Your task to perform on an android device: star an email in the gmail app Image 0: 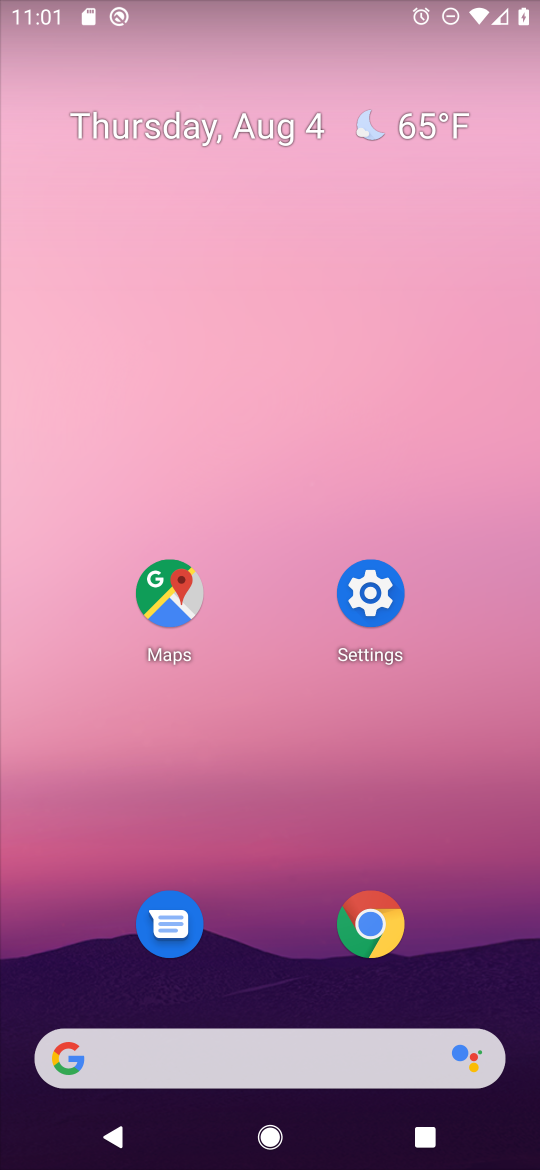
Step 0: press home button
Your task to perform on an android device: star an email in the gmail app Image 1: 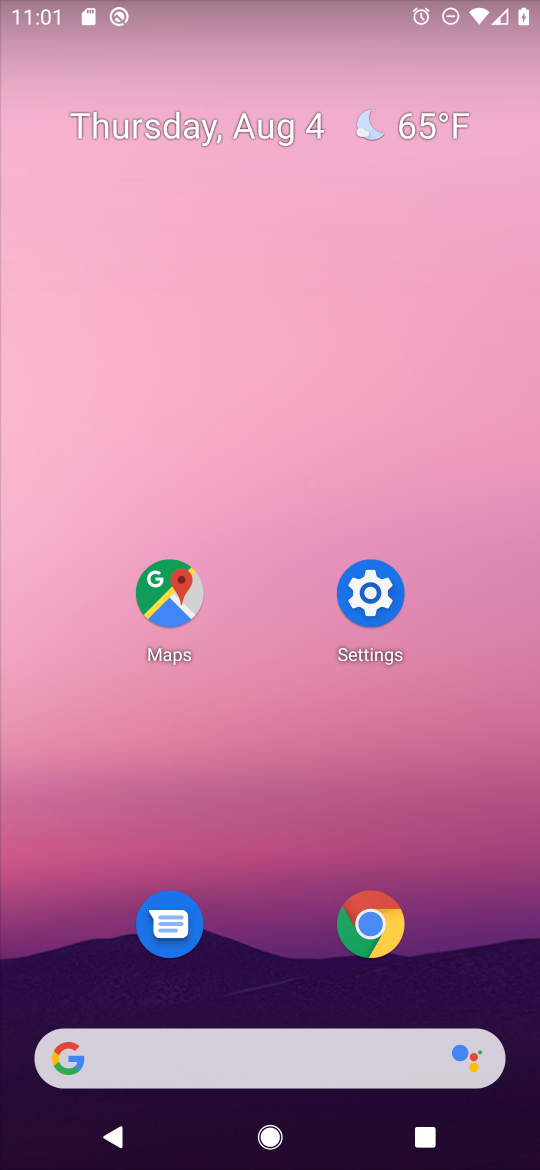
Step 1: drag from (212, 1048) to (239, 95)
Your task to perform on an android device: star an email in the gmail app Image 2: 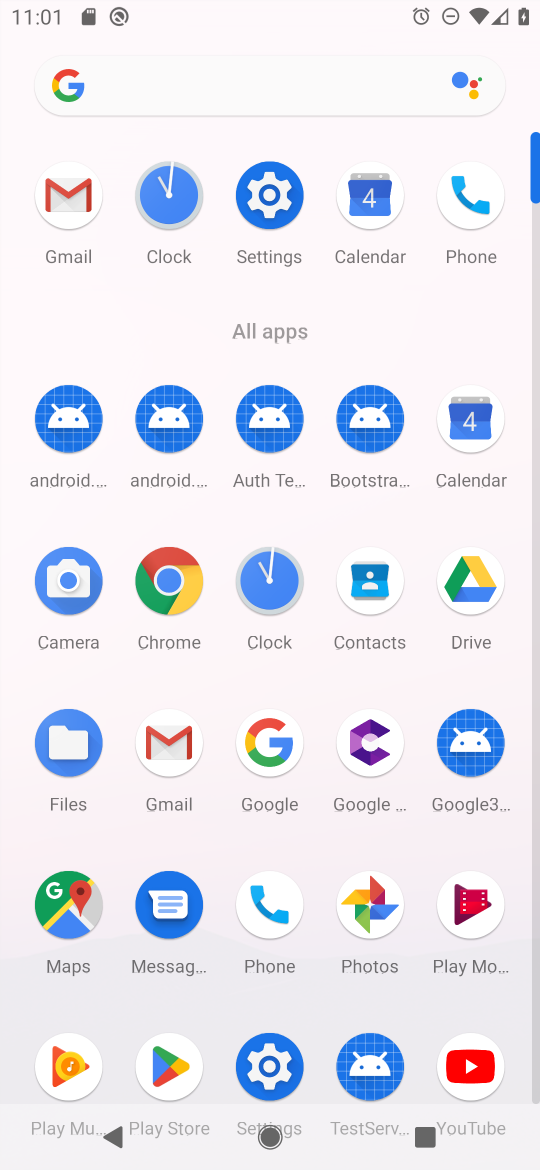
Step 2: click (73, 221)
Your task to perform on an android device: star an email in the gmail app Image 3: 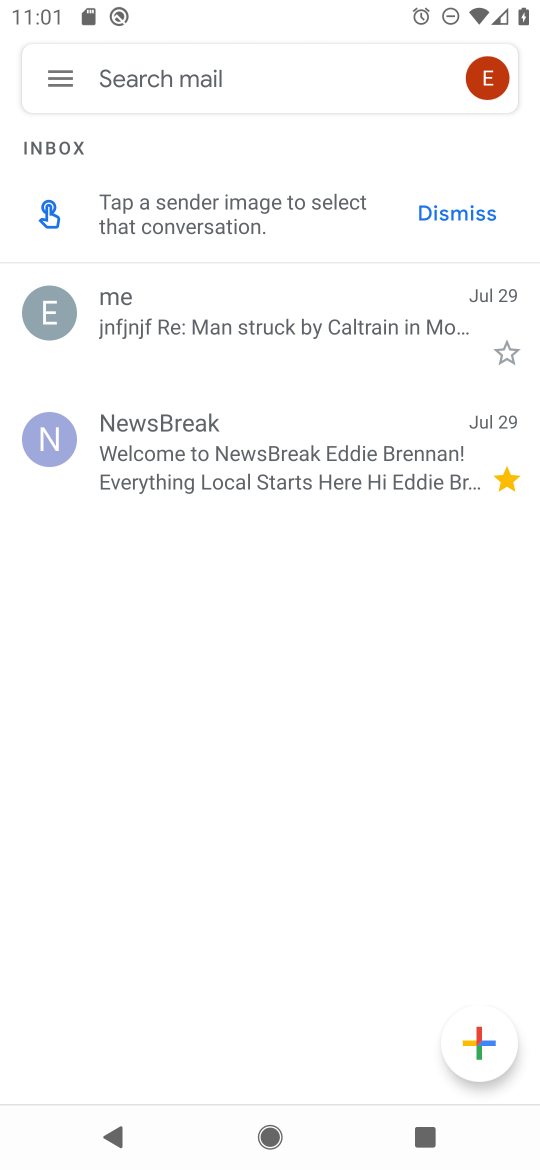
Step 3: click (48, 72)
Your task to perform on an android device: star an email in the gmail app Image 4: 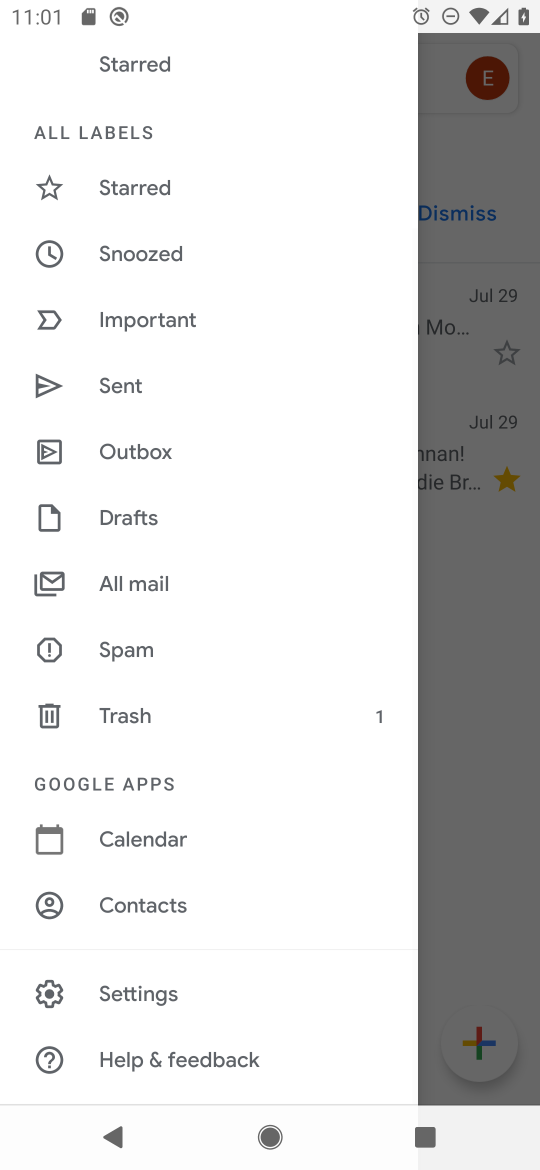
Step 4: click (472, 635)
Your task to perform on an android device: star an email in the gmail app Image 5: 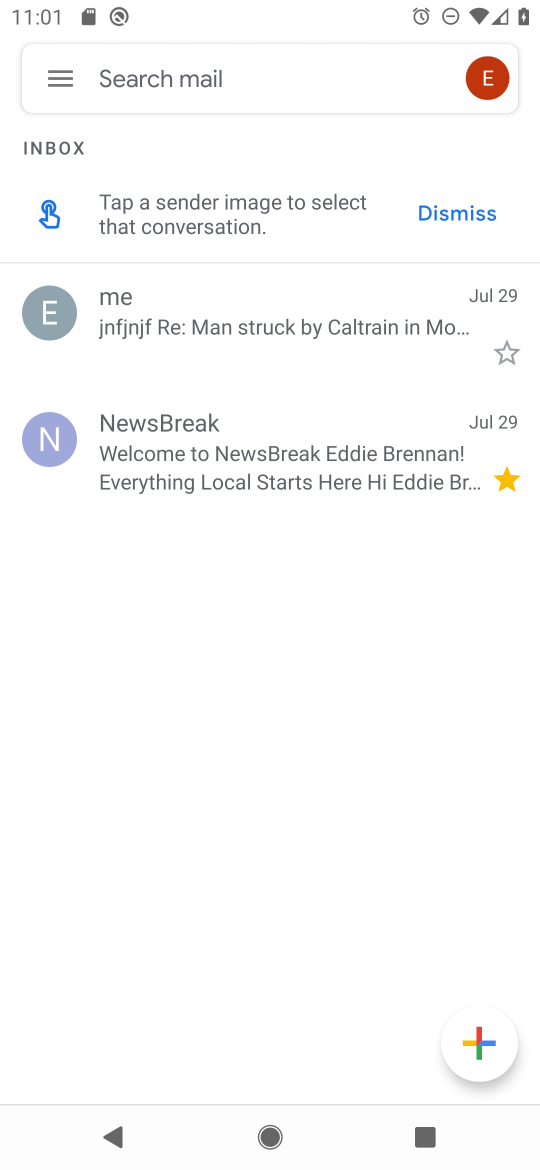
Step 5: click (59, 302)
Your task to perform on an android device: star an email in the gmail app Image 6: 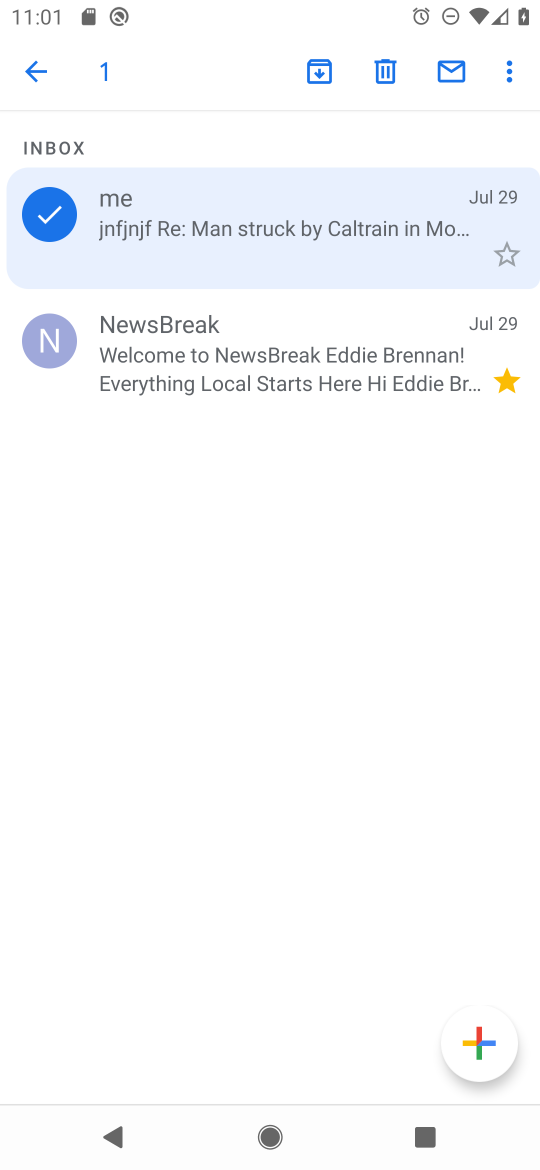
Step 6: click (518, 74)
Your task to perform on an android device: star an email in the gmail app Image 7: 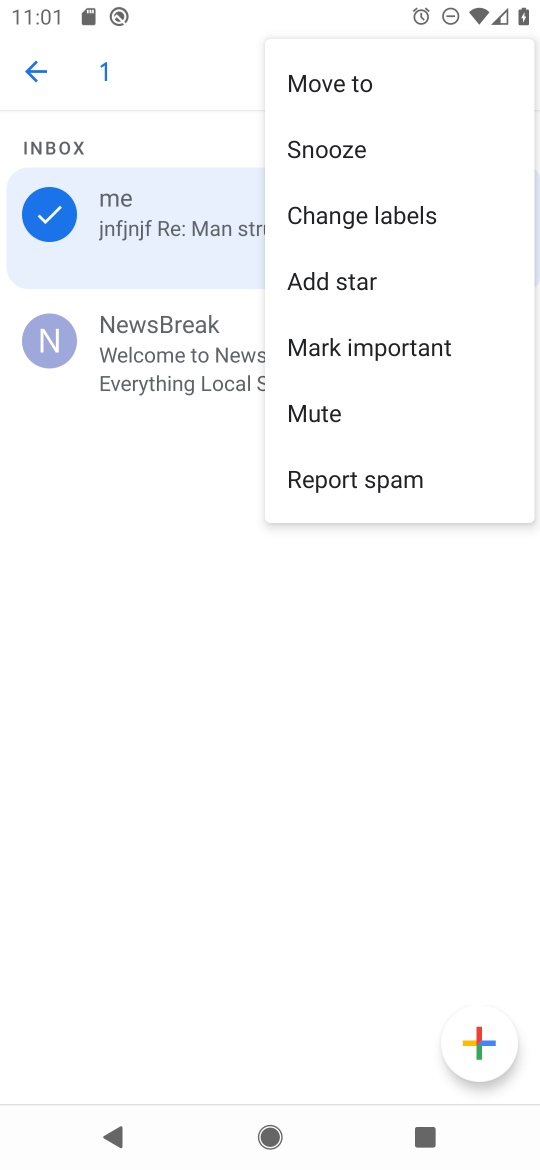
Step 7: click (350, 286)
Your task to perform on an android device: star an email in the gmail app Image 8: 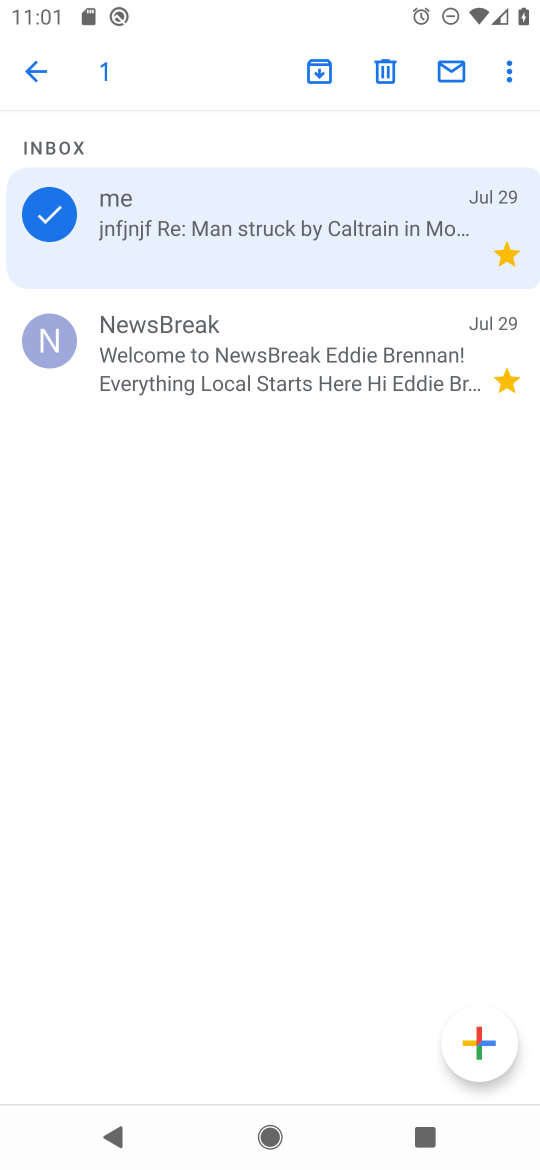
Step 8: click (58, 224)
Your task to perform on an android device: star an email in the gmail app Image 9: 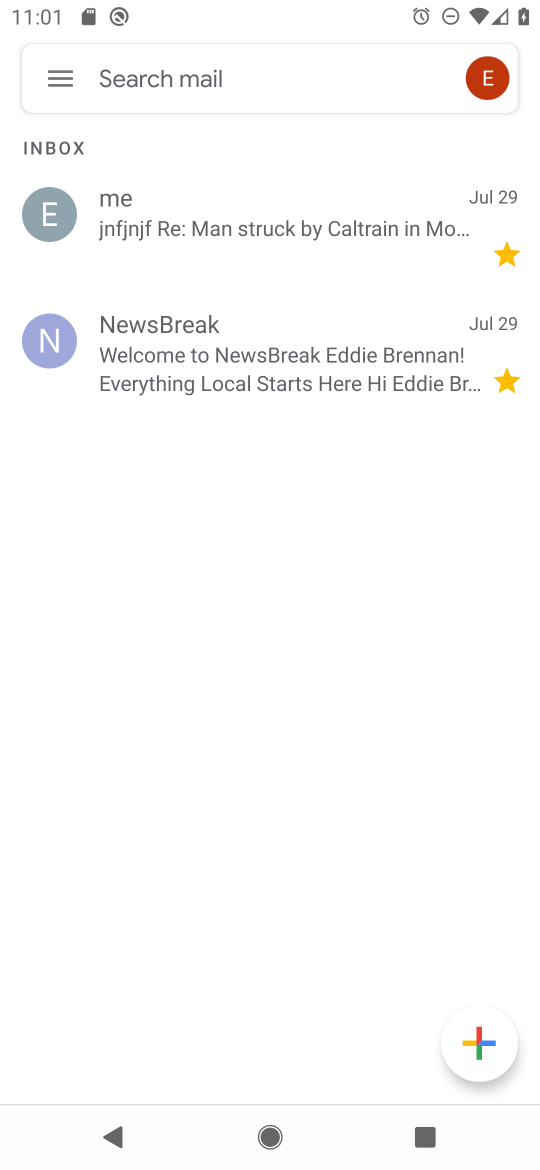
Step 9: task complete